Your task to perform on an android device: check out phone information Image 0: 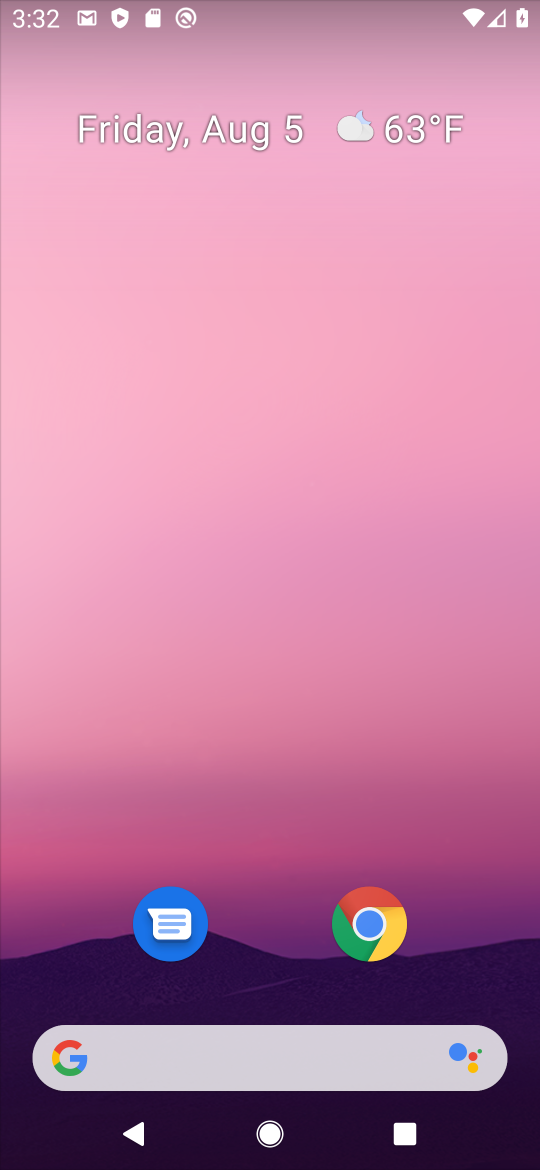
Step 0: drag from (279, 962) to (262, 21)
Your task to perform on an android device: check out phone information Image 1: 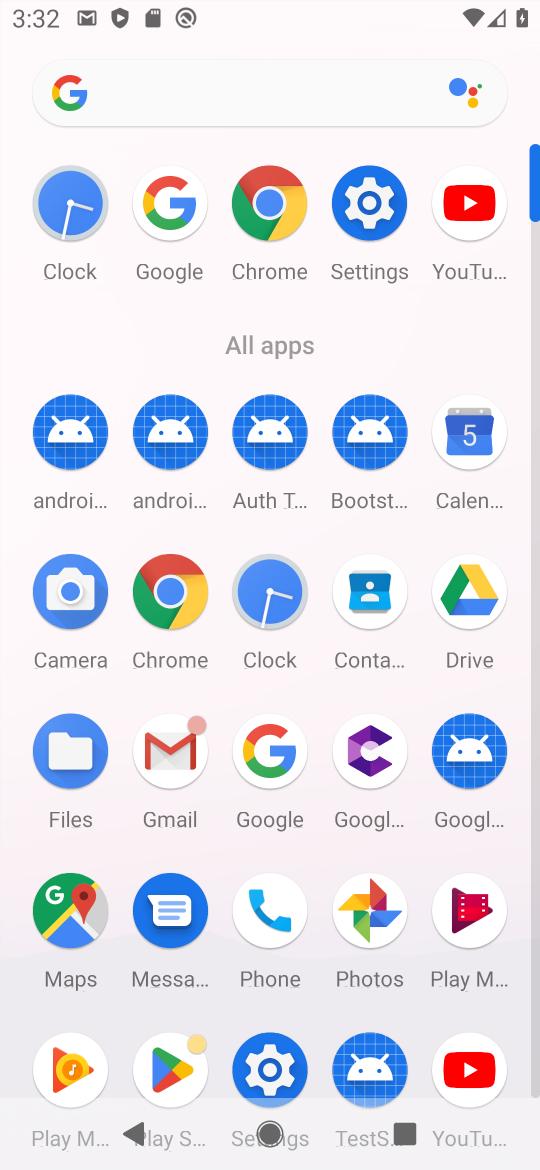
Step 1: click (286, 1064)
Your task to perform on an android device: check out phone information Image 2: 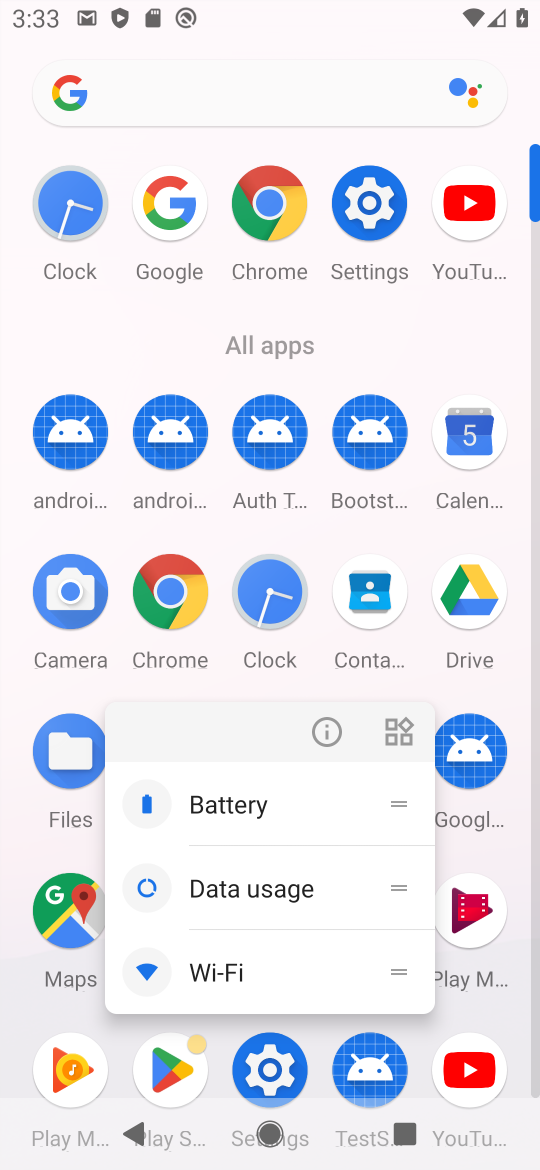
Step 2: click (250, 1067)
Your task to perform on an android device: check out phone information Image 3: 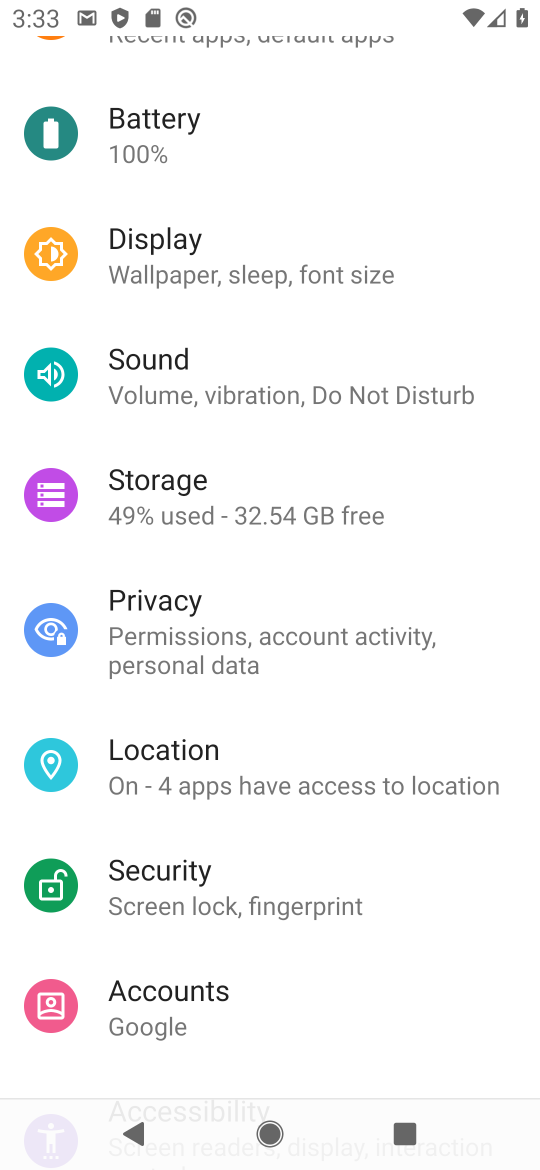
Step 3: drag from (241, 940) to (320, 36)
Your task to perform on an android device: check out phone information Image 4: 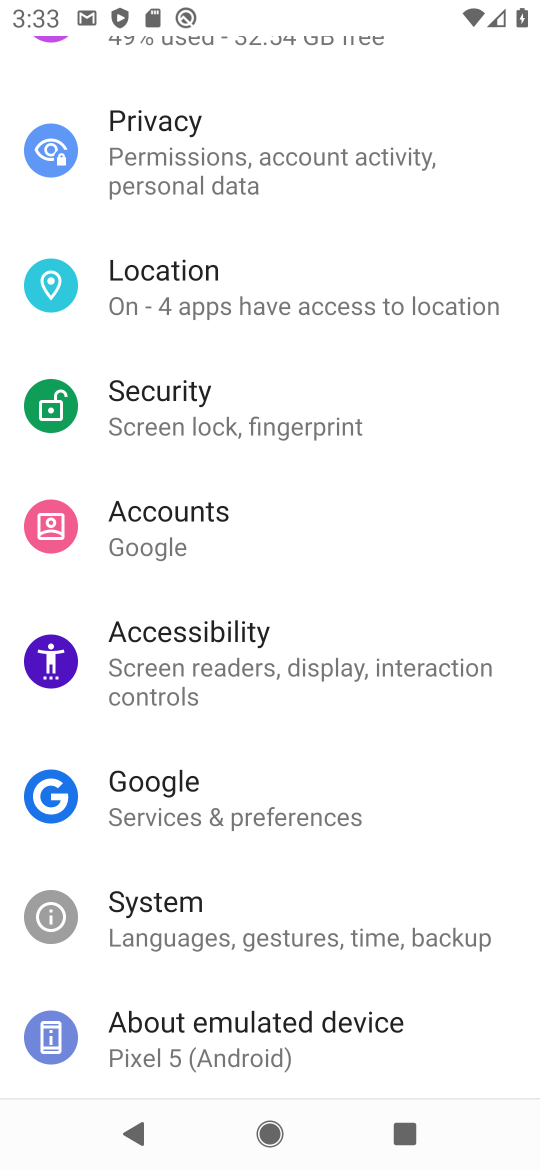
Step 4: click (275, 1038)
Your task to perform on an android device: check out phone information Image 5: 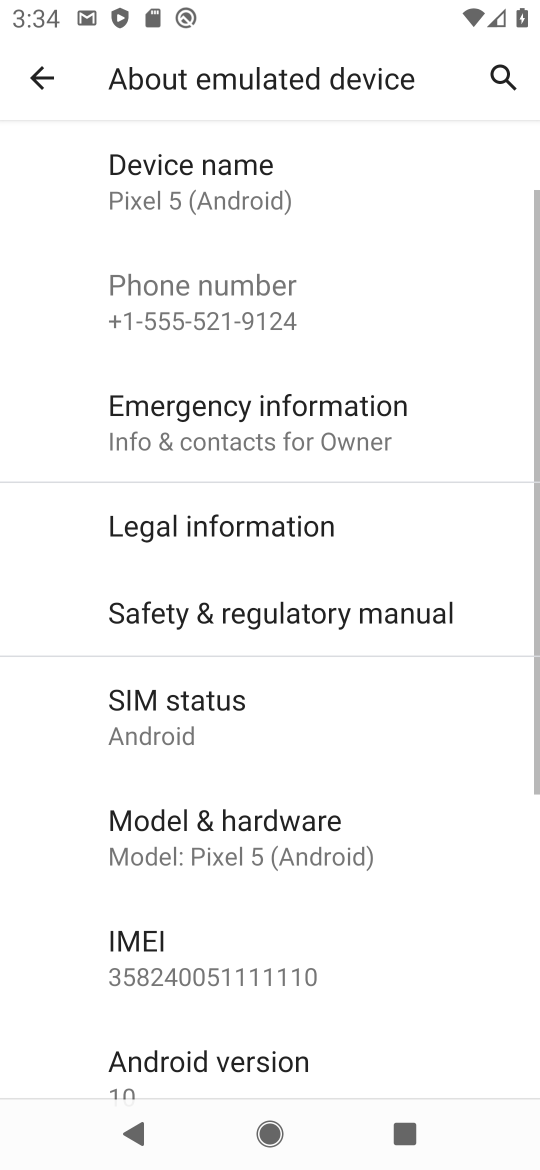
Step 5: task complete